Your task to perform on an android device: show emergency info Image 0: 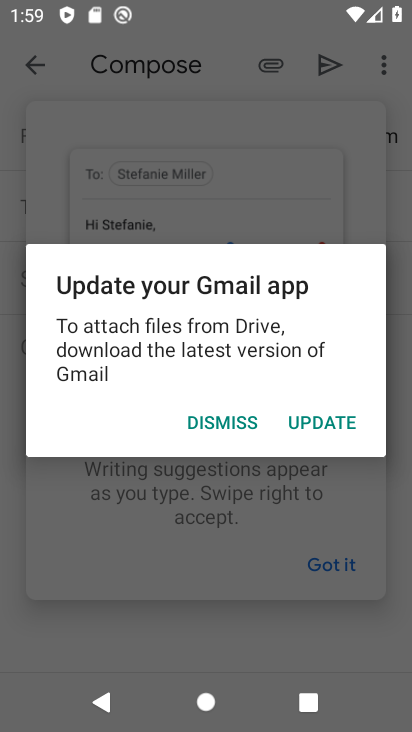
Step 0: press home button
Your task to perform on an android device: show emergency info Image 1: 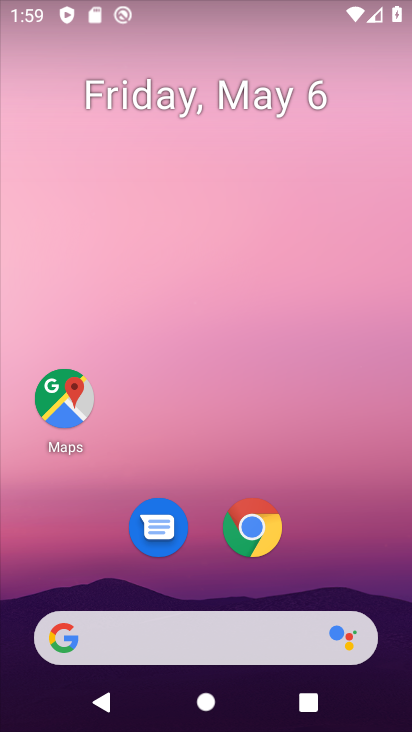
Step 1: drag from (315, 572) to (331, 149)
Your task to perform on an android device: show emergency info Image 2: 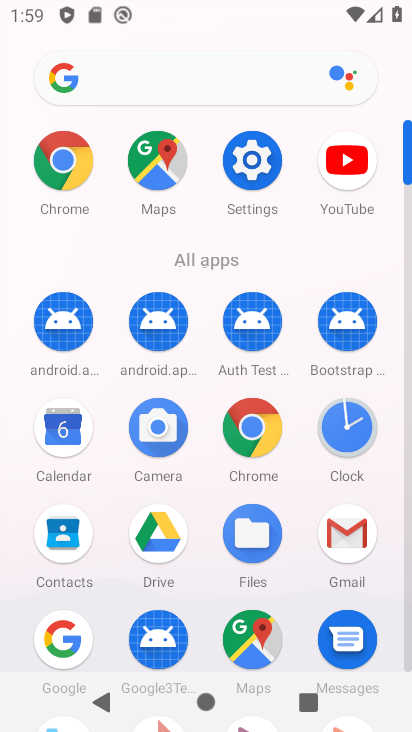
Step 2: click (256, 172)
Your task to perform on an android device: show emergency info Image 3: 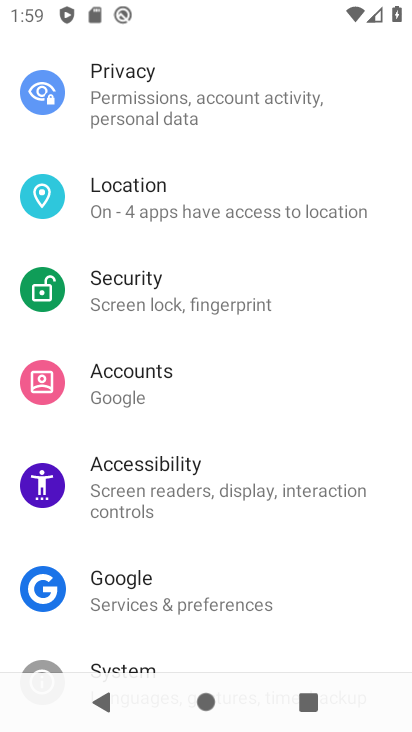
Step 3: drag from (279, 582) to (304, 95)
Your task to perform on an android device: show emergency info Image 4: 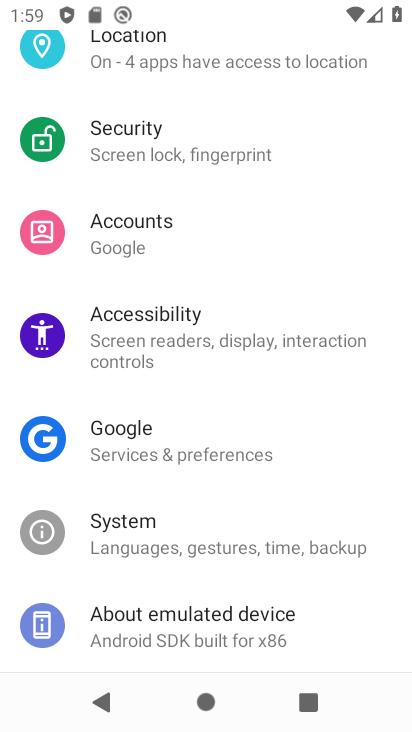
Step 4: click (158, 628)
Your task to perform on an android device: show emergency info Image 5: 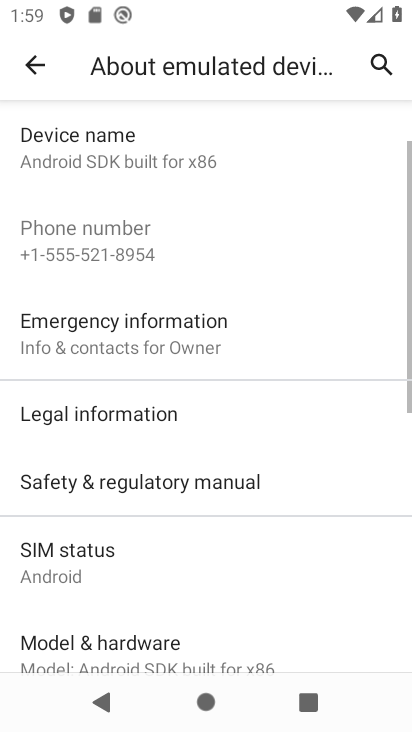
Step 5: click (114, 324)
Your task to perform on an android device: show emergency info Image 6: 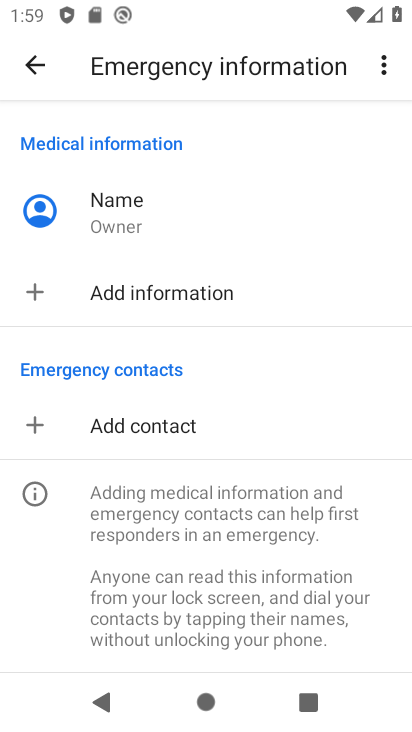
Step 6: task complete